Your task to perform on an android device: star an email in the gmail app Image 0: 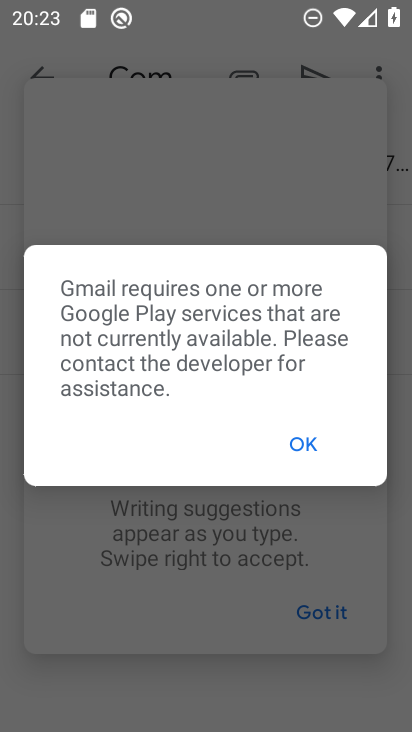
Step 0: press home button
Your task to perform on an android device: star an email in the gmail app Image 1: 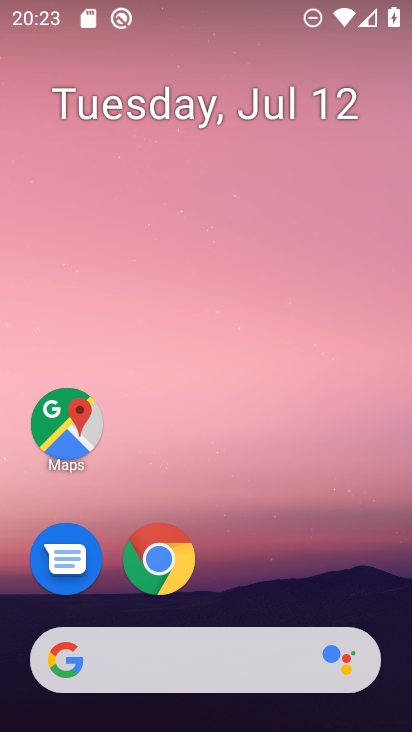
Step 1: drag from (347, 574) to (359, 103)
Your task to perform on an android device: star an email in the gmail app Image 2: 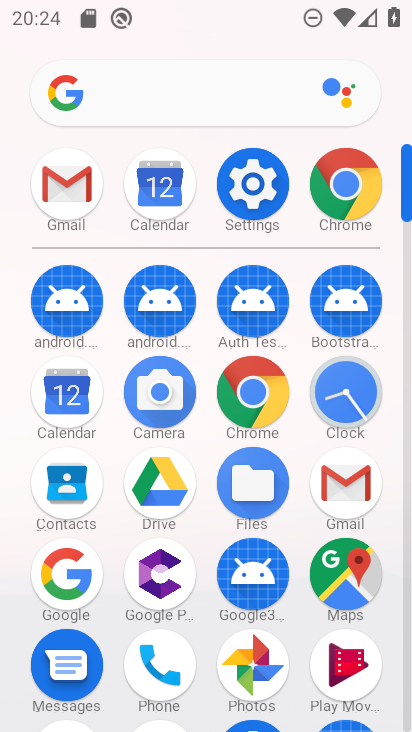
Step 2: click (356, 487)
Your task to perform on an android device: star an email in the gmail app Image 3: 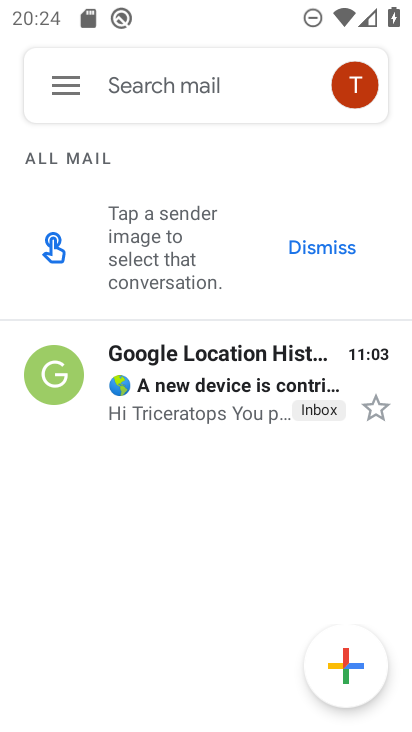
Step 3: click (384, 407)
Your task to perform on an android device: star an email in the gmail app Image 4: 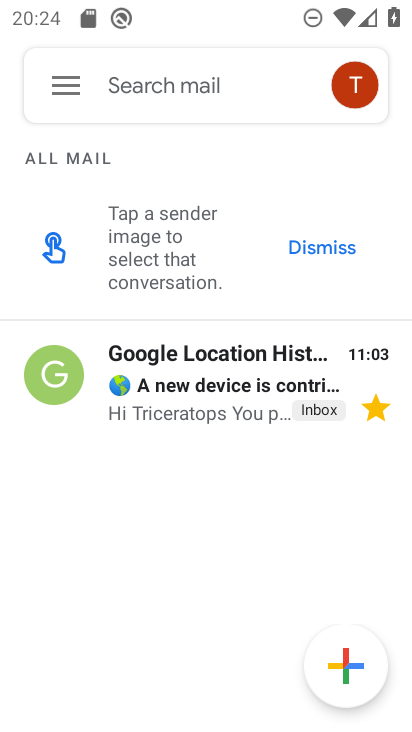
Step 4: task complete